Your task to perform on an android device: toggle airplane mode Image 0: 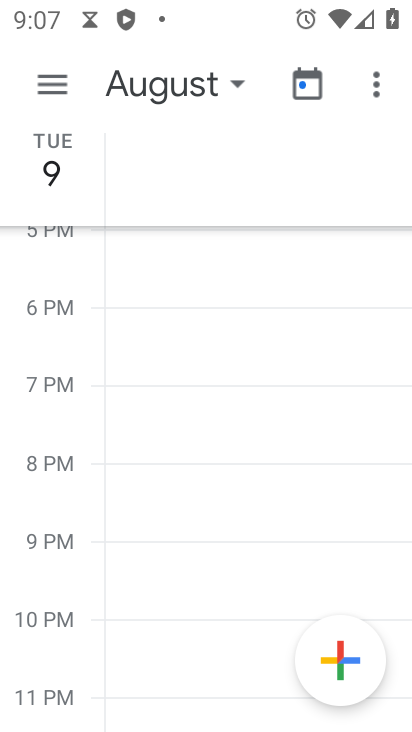
Step 0: drag from (234, 9) to (206, 713)
Your task to perform on an android device: toggle airplane mode Image 1: 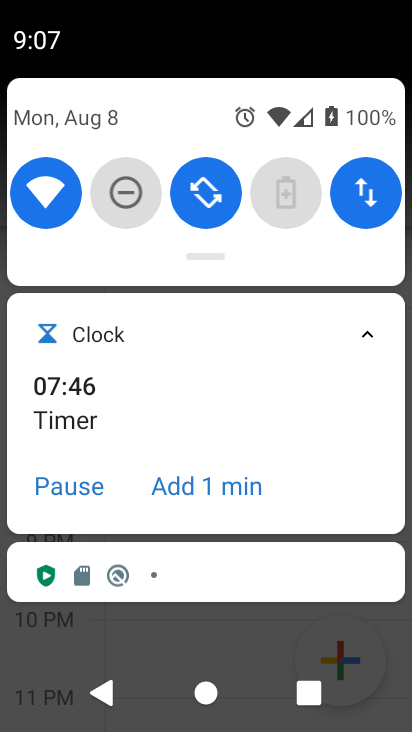
Step 1: drag from (238, 252) to (303, 727)
Your task to perform on an android device: toggle airplane mode Image 2: 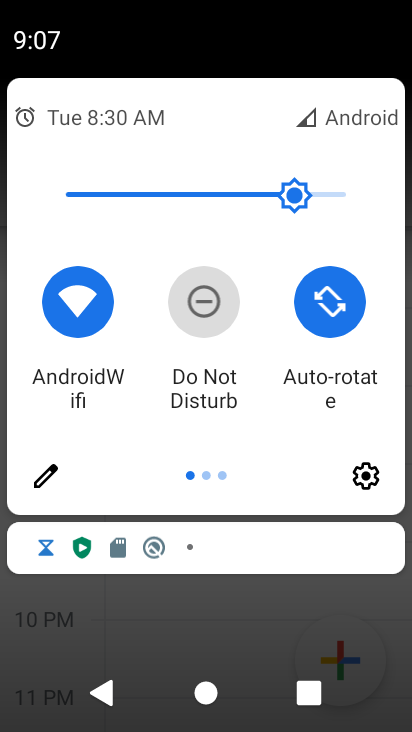
Step 2: drag from (347, 343) to (5, 357)
Your task to perform on an android device: toggle airplane mode Image 3: 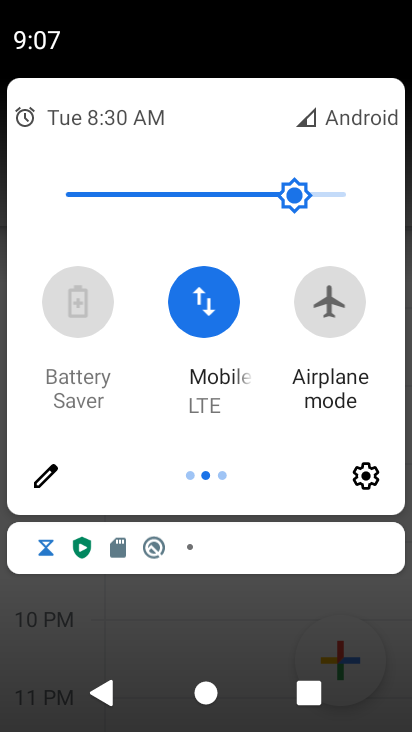
Step 3: click (329, 292)
Your task to perform on an android device: toggle airplane mode Image 4: 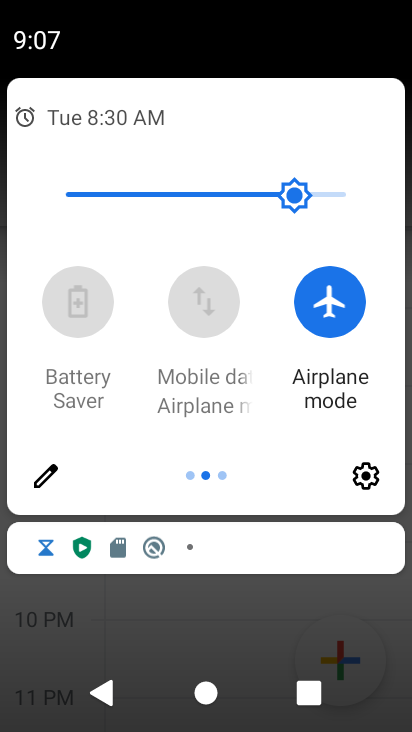
Step 4: task complete